Your task to perform on an android device: open chrome privacy settings Image 0: 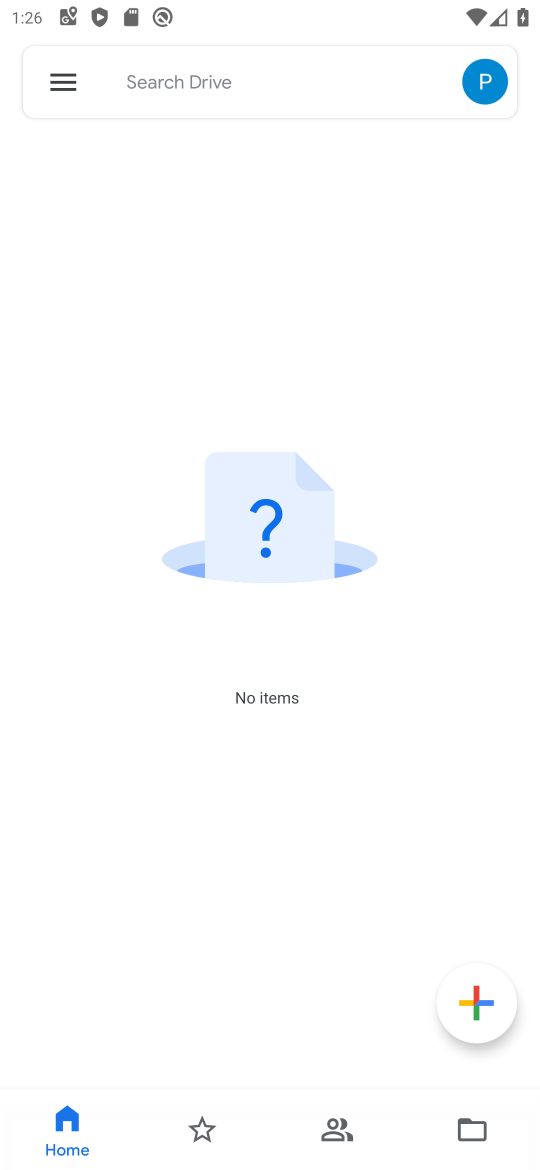
Step 0: press home button
Your task to perform on an android device: open chrome privacy settings Image 1: 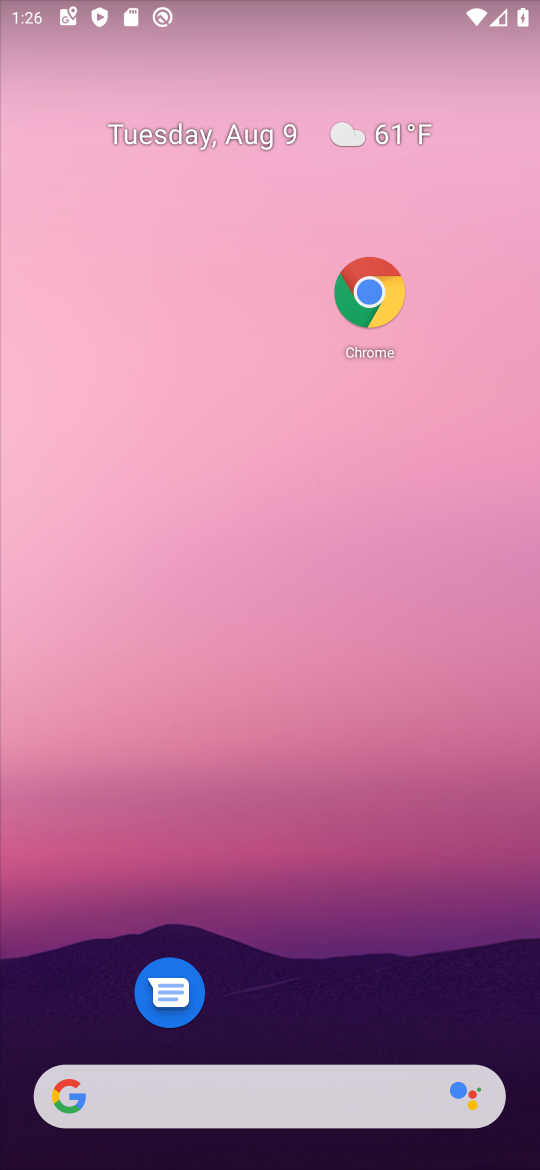
Step 1: drag from (403, 1039) to (432, 151)
Your task to perform on an android device: open chrome privacy settings Image 2: 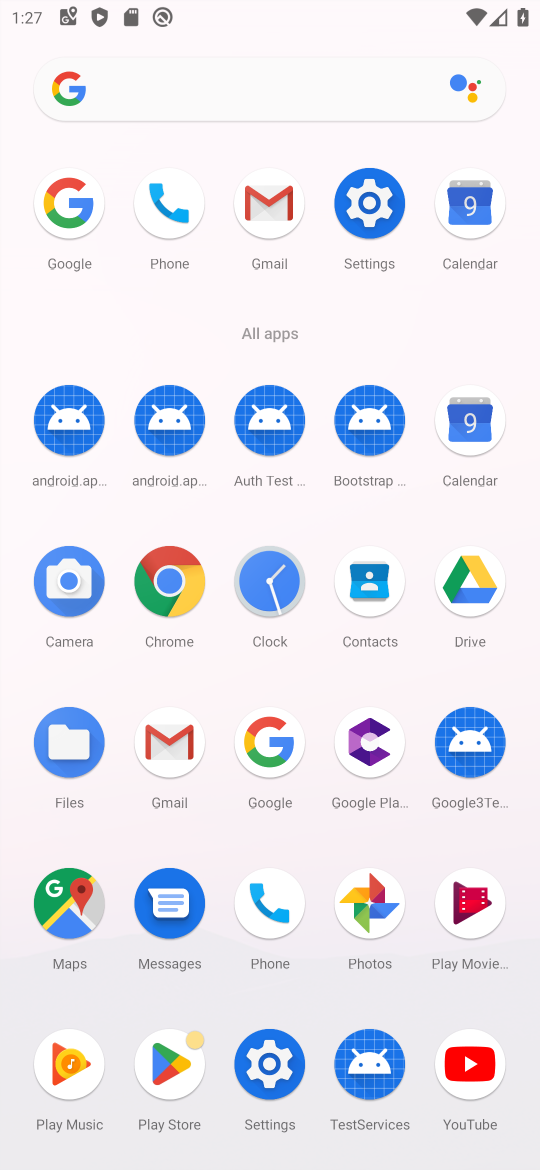
Step 2: click (370, 248)
Your task to perform on an android device: open chrome privacy settings Image 3: 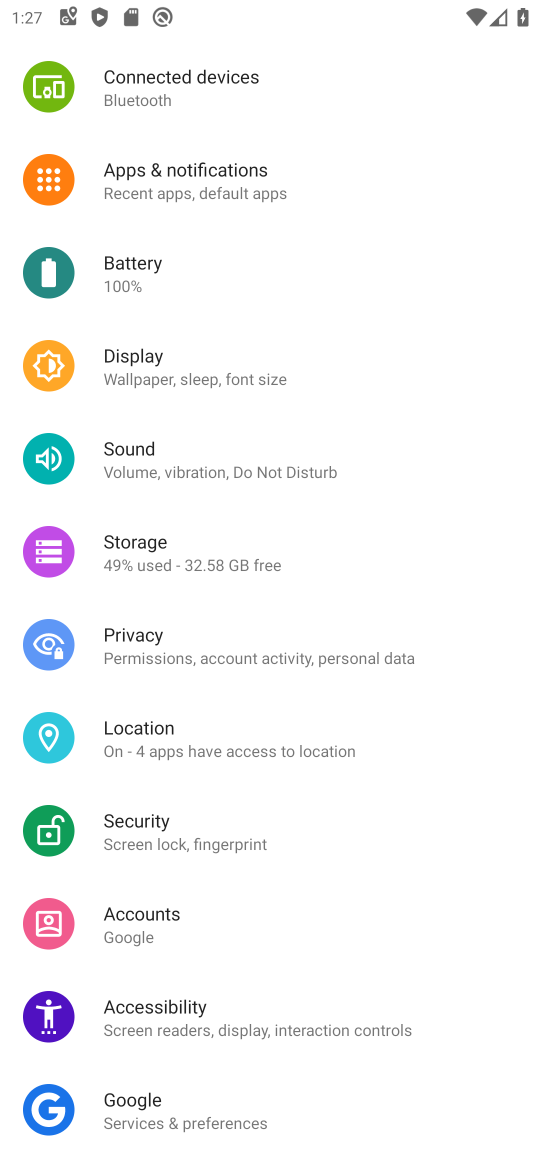
Step 3: click (174, 629)
Your task to perform on an android device: open chrome privacy settings Image 4: 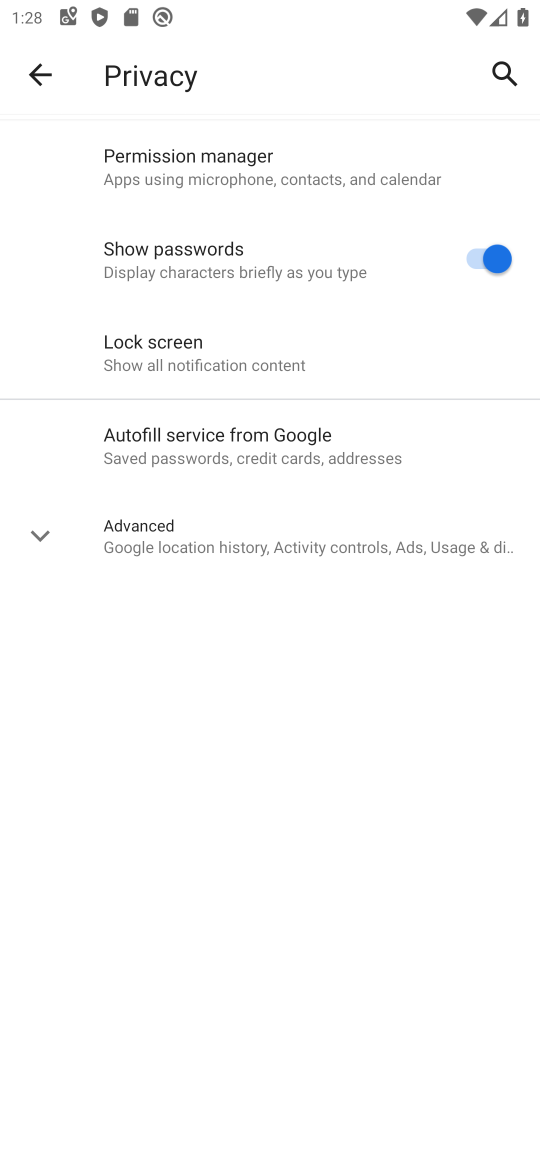
Step 4: task complete